Your task to perform on an android device: Open sound settings Image 0: 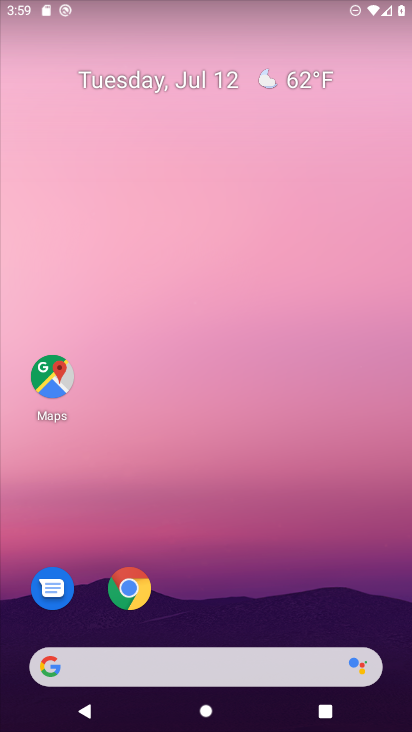
Step 0: drag from (254, 591) to (216, 11)
Your task to perform on an android device: Open sound settings Image 1: 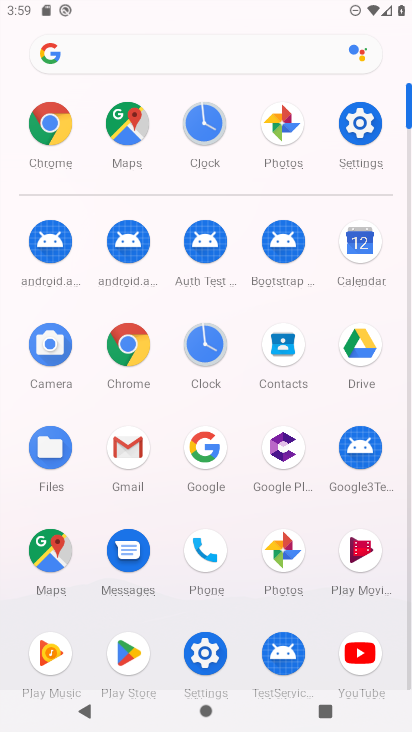
Step 1: click (357, 150)
Your task to perform on an android device: Open sound settings Image 2: 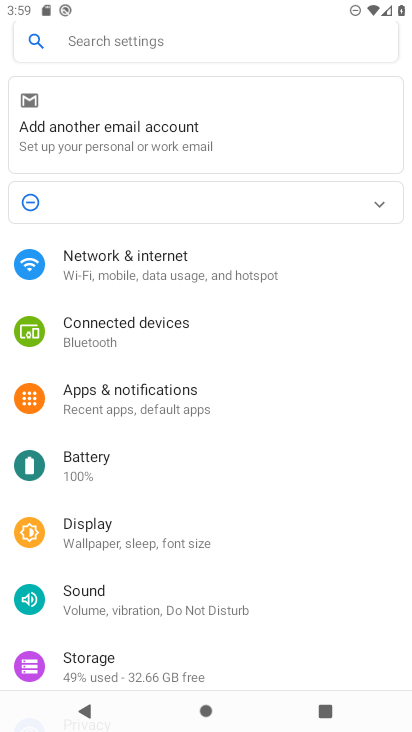
Step 2: click (139, 614)
Your task to perform on an android device: Open sound settings Image 3: 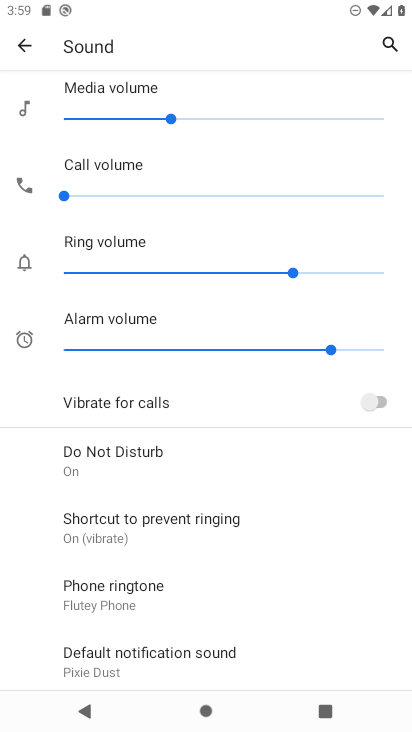
Step 3: task complete